Your task to perform on an android device: clear all cookies in the chrome app Image 0: 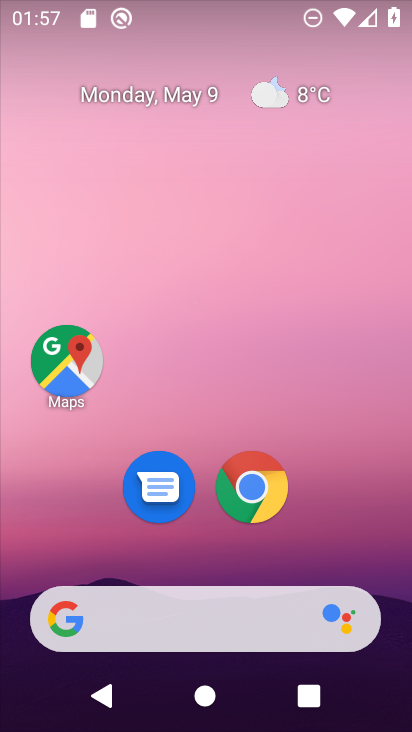
Step 0: click (256, 477)
Your task to perform on an android device: clear all cookies in the chrome app Image 1: 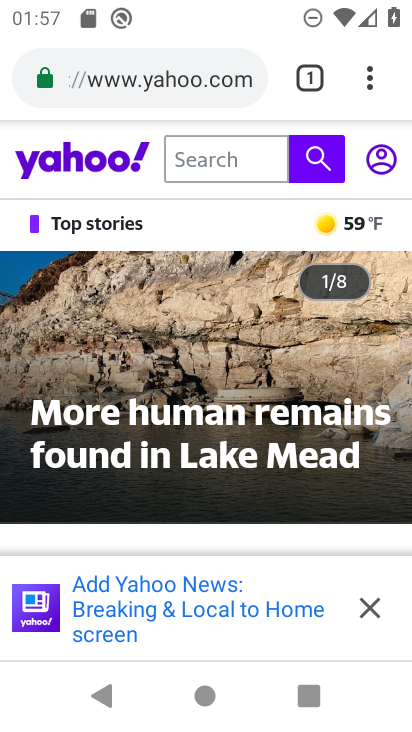
Step 1: click (366, 79)
Your task to perform on an android device: clear all cookies in the chrome app Image 2: 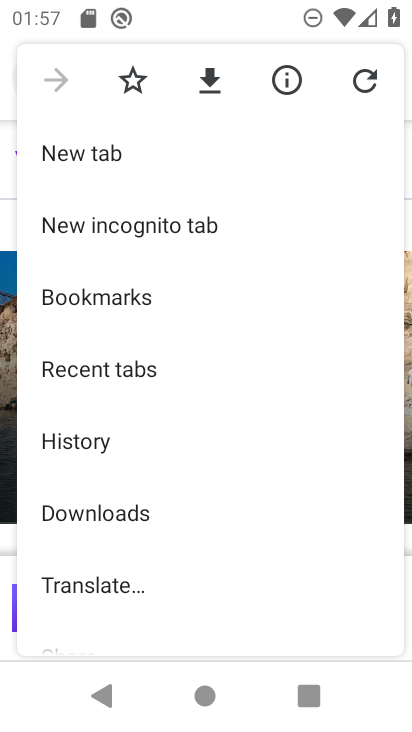
Step 2: drag from (112, 565) to (121, 260)
Your task to perform on an android device: clear all cookies in the chrome app Image 3: 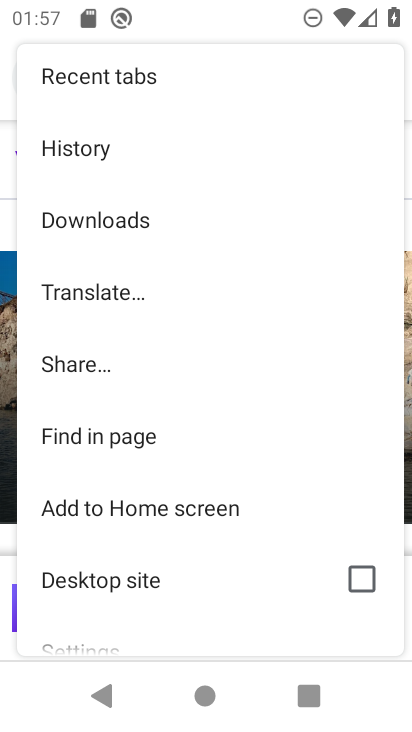
Step 3: drag from (144, 595) to (168, 283)
Your task to perform on an android device: clear all cookies in the chrome app Image 4: 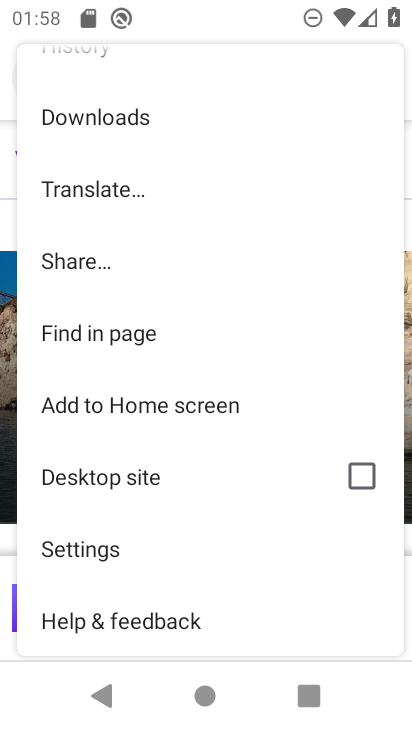
Step 4: click (140, 551)
Your task to perform on an android device: clear all cookies in the chrome app Image 5: 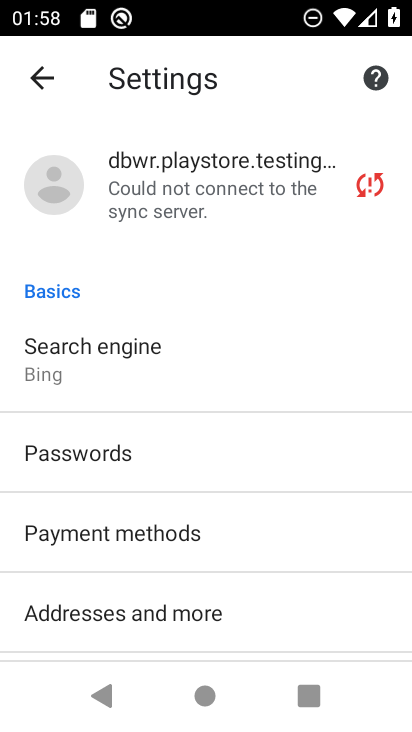
Step 5: drag from (130, 580) to (106, 265)
Your task to perform on an android device: clear all cookies in the chrome app Image 6: 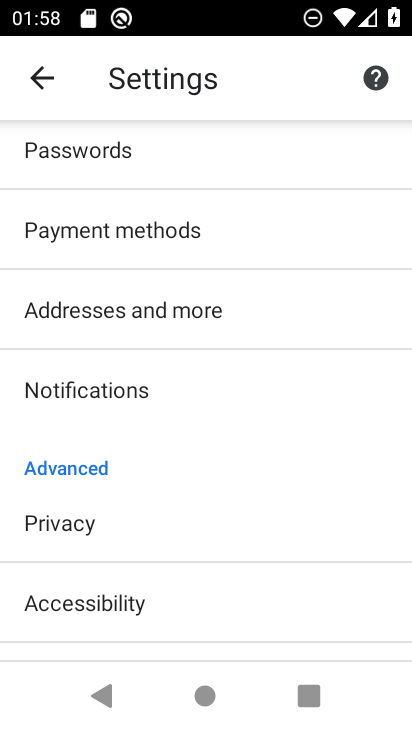
Step 6: drag from (125, 552) to (100, 258)
Your task to perform on an android device: clear all cookies in the chrome app Image 7: 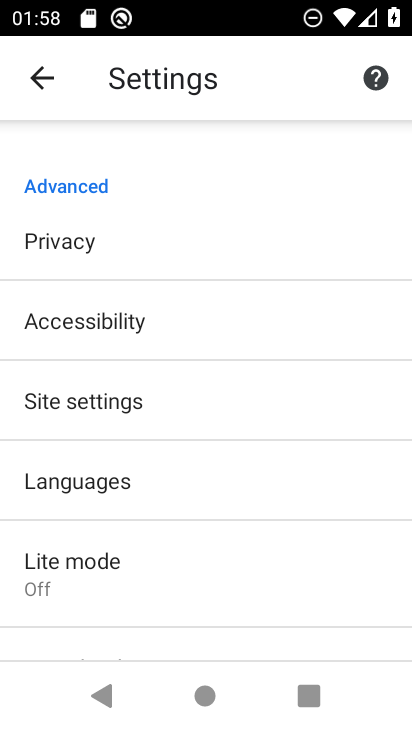
Step 7: click (108, 387)
Your task to perform on an android device: clear all cookies in the chrome app Image 8: 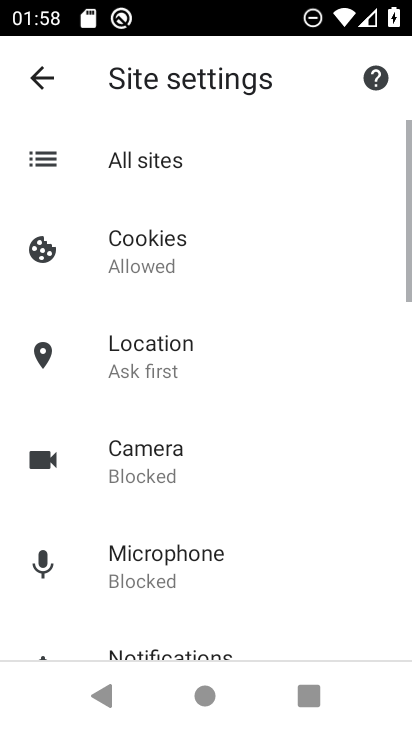
Step 8: drag from (181, 557) to (133, 8)
Your task to perform on an android device: clear all cookies in the chrome app Image 9: 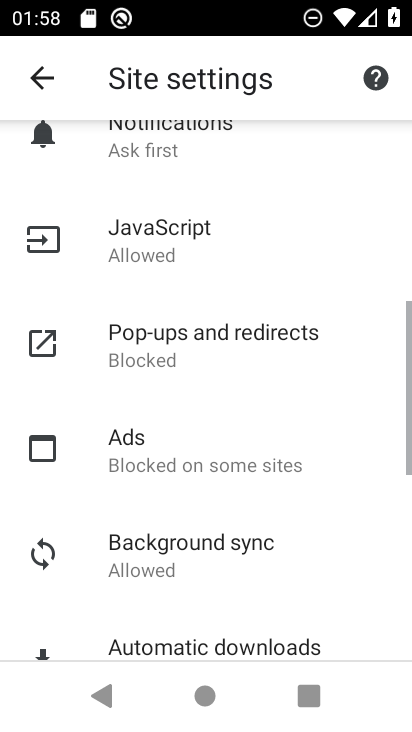
Step 9: drag from (147, 541) to (125, 15)
Your task to perform on an android device: clear all cookies in the chrome app Image 10: 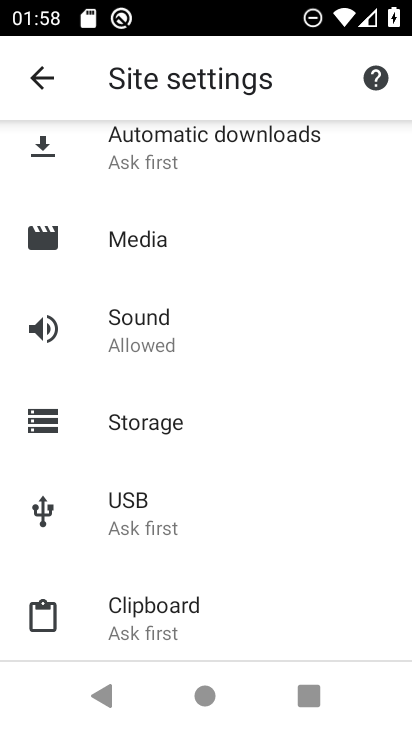
Step 10: click (44, 85)
Your task to perform on an android device: clear all cookies in the chrome app Image 11: 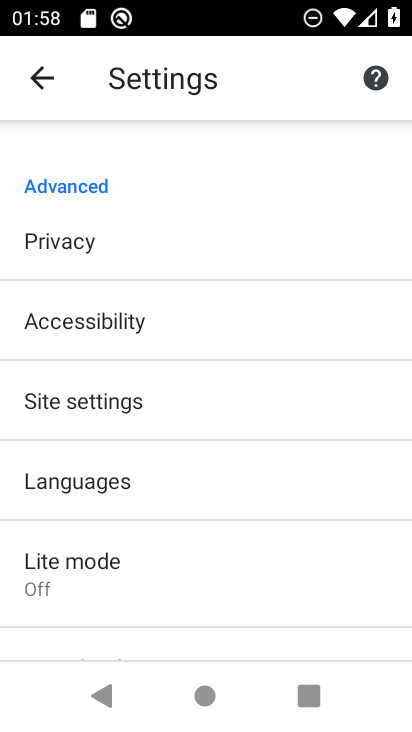
Step 11: drag from (284, 546) to (256, 391)
Your task to perform on an android device: clear all cookies in the chrome app Image 12: 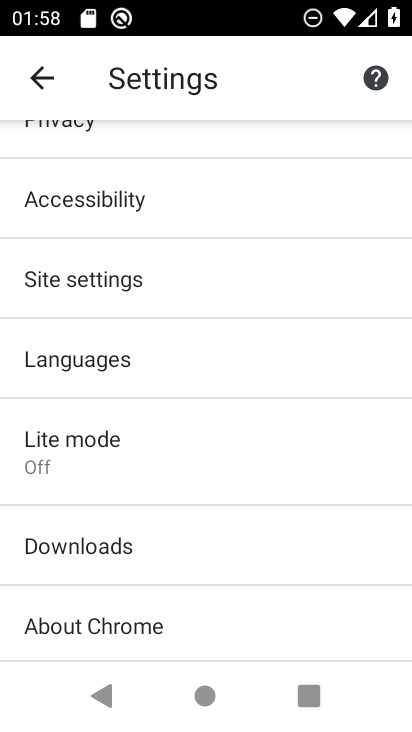
Step 12: click (128, 139)
Your task to perform on an android device: clear all cookies in the chrome app Image 13: 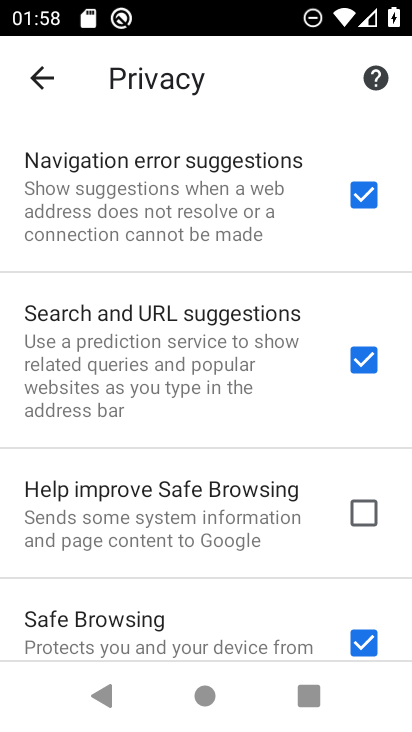
Step 13: drag from (154, 576) to (130, 118)
Your task to perform on an android device: clear all cookies in the chrome app Image 14: 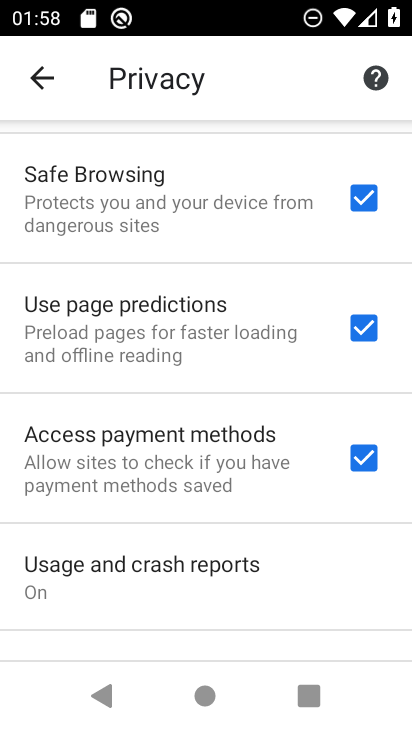
Step 14: drag from (174, 598) to (186, 54)
Your task to perform on an android device: clear all cookies in the chrome app Image 15: 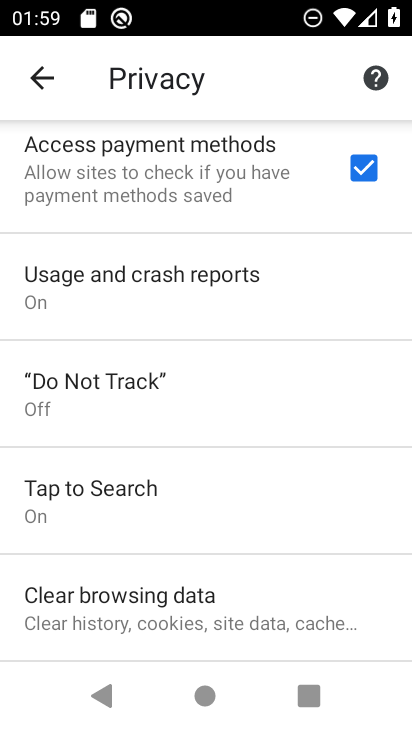
Step 15: drag from (192, 543) to (174, 97)
Your task to perform on an android device: clear all cookies in the chrome app Image 16: 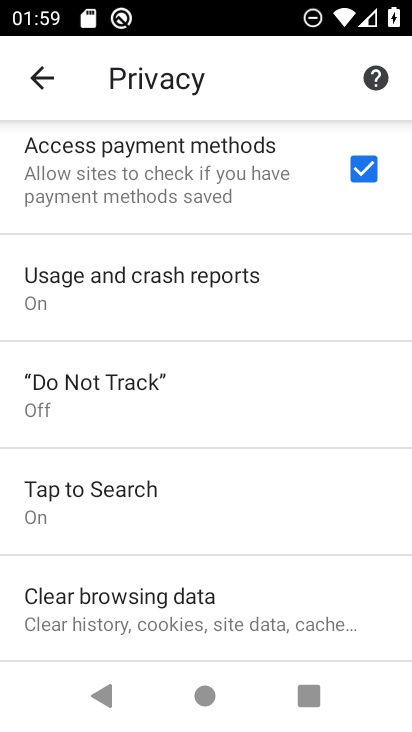
Step 16: click (164, 621)
Your task to perform on an android device: clear all cookies in the chrome app Image 17: 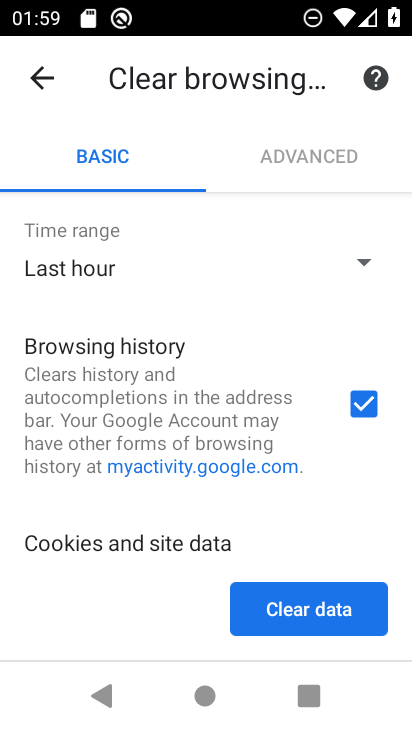
Step 17: click (292, 257)
Your task to perform on an android device: clear all cookies in the chrome app Image 18: 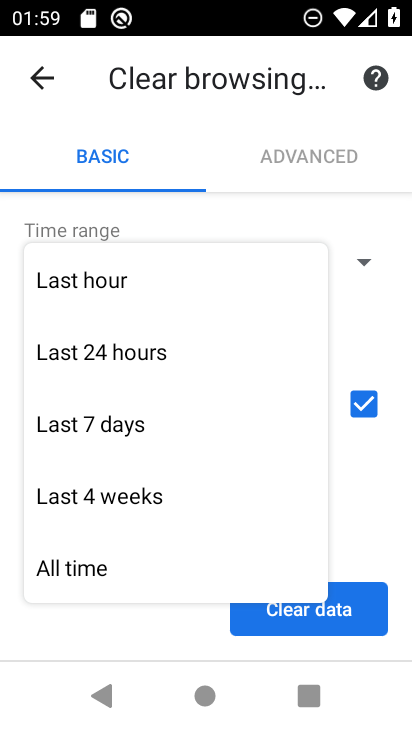
Step 18: click (104, 564)
Your task to perform on an android device: clear all cookies in the chrome app Image 19: 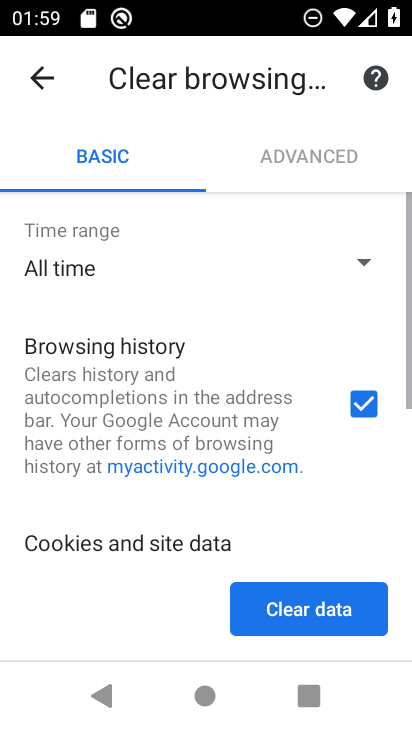
Step 19: drag from (228, 543) to (239, 226)
Your task to perform on an android device: clear all cookies in the chrome app Image 20: 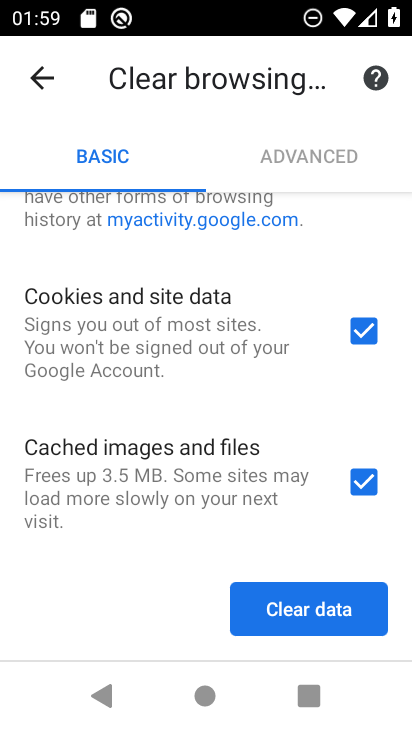
Step 20: click (306, 628)
Your task to perform on an android device: clear all cookies in the chrome app Image 21: 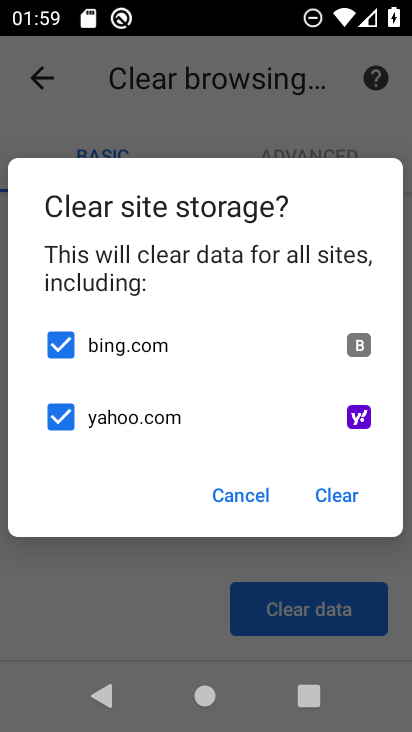
Step 21: click (317, 498)
Your task to perform on an android device: clear all cookies in the chrome app Image 22: 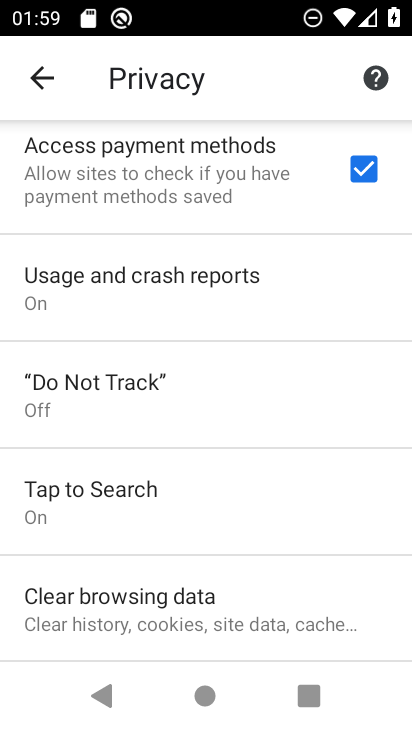
Step 22: task complete